Your task to perform on an android device: toggle notification dots Image 0: 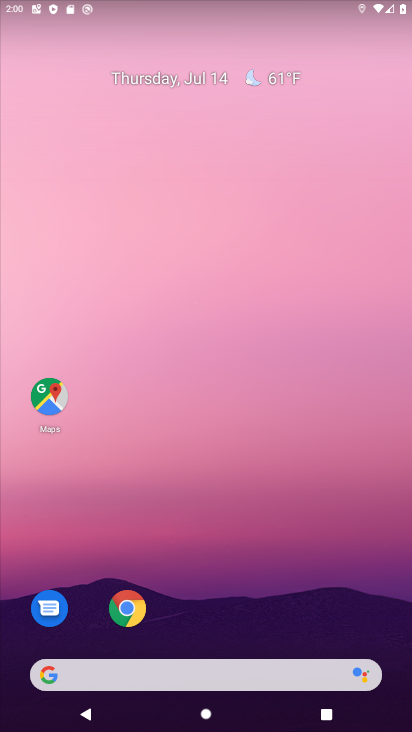
Step 0: drag from (173, 675) to (342, 136)
Your task to perform on an android device: toggle notification dots Image 1: 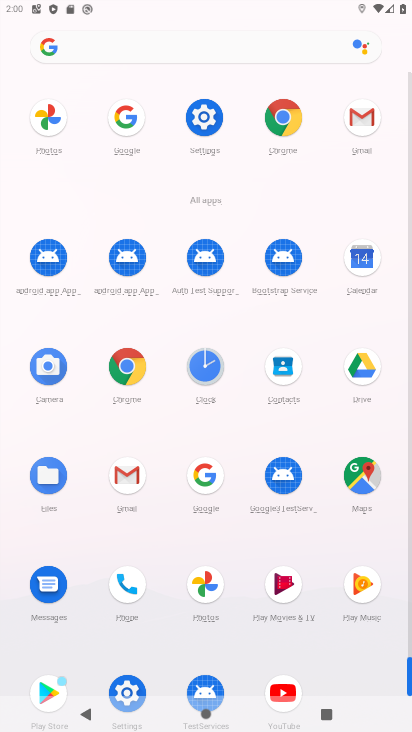
Step 1: click (201, 115)
Your task to perform on an android device: toggle notification dots Image 2: 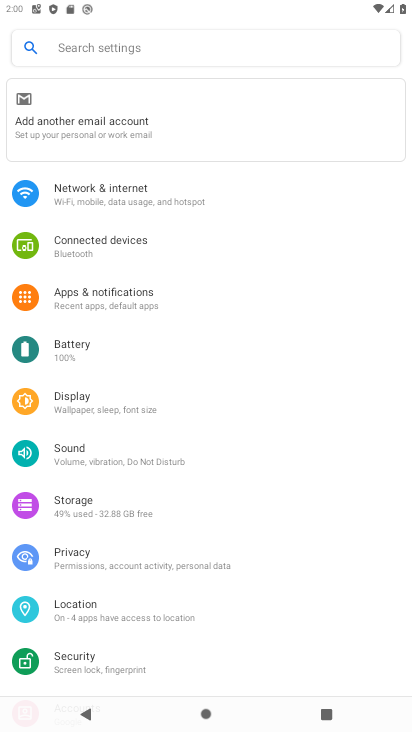
Step 2: click (140, 299)
Your task to perform on an android device: toggle notification dots Image 3: 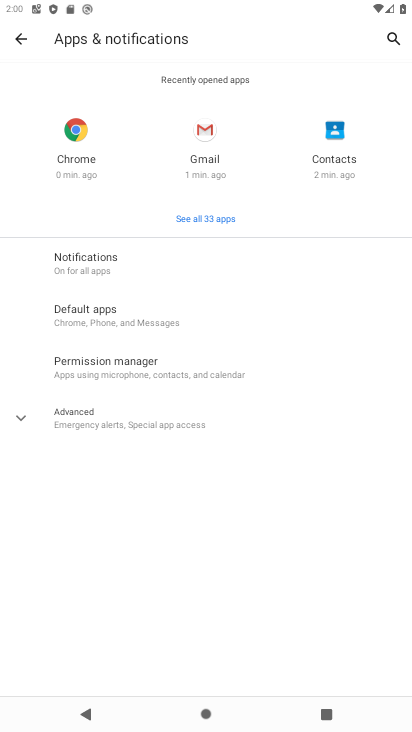
Step 3: click (88, 257)
Your task to perform on an android device: toggle notification dots Image 4: 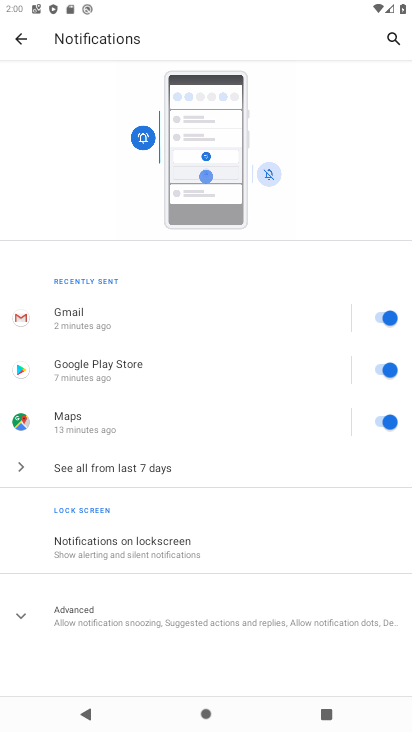
Step 4: click (108, 620)
Your task to perform on an android device: toggle notification dots Image 5: 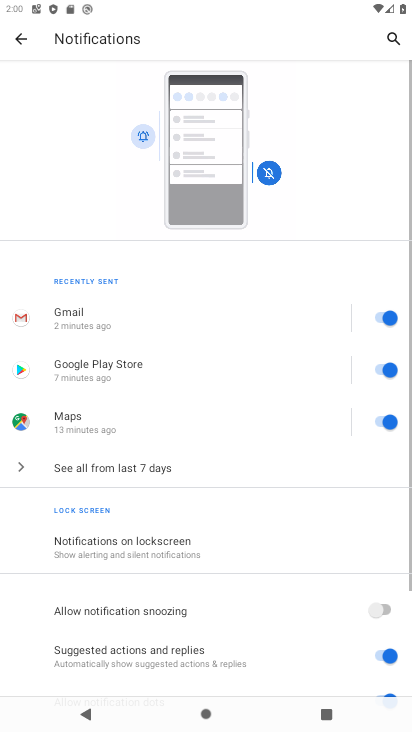
Step 5: drag from (108, 620) to (207, 451)
Your task to perform on an android device: toggle notification dots Image 6: 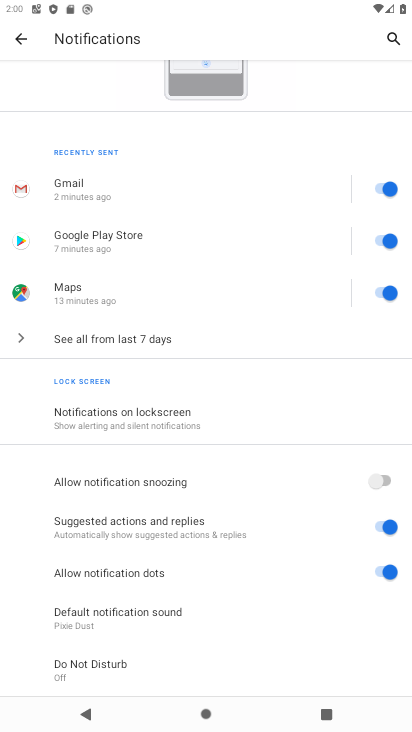
Step 6: click (390, 573)
Your task to perform on an android device: toggle notification dots Image 7: 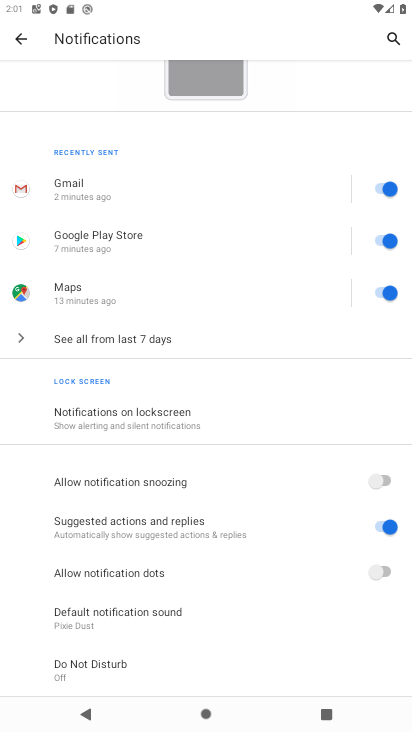
Step 7: task complete